Your task to perform on an android device: Show me popular games on the Play Store Image 0: 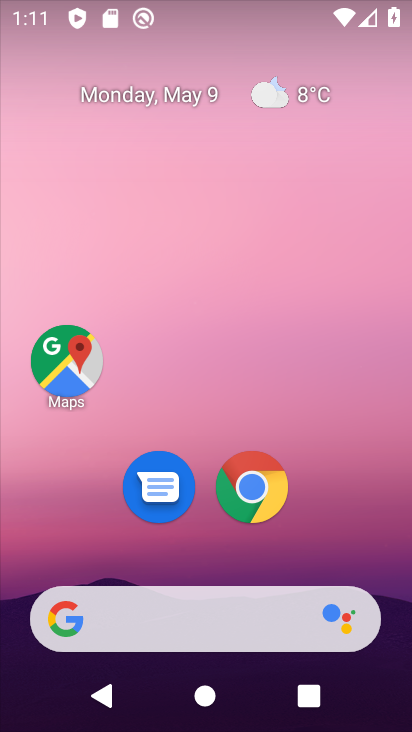
Step 0: drag from (351, 518) to (363, 9)
Your task to perform on an android device: Show me popular games on the Play Store Image 1: 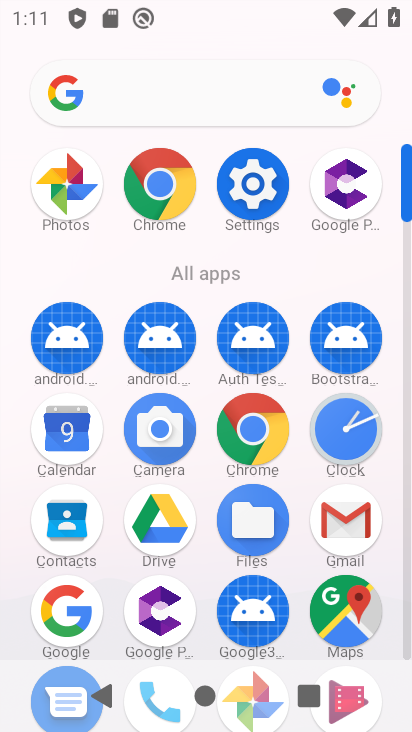
Step 1: drag from (216, 288) to (214, 2)
Your task to perform on an android device: Show me popular games on the Play Store Image 2: 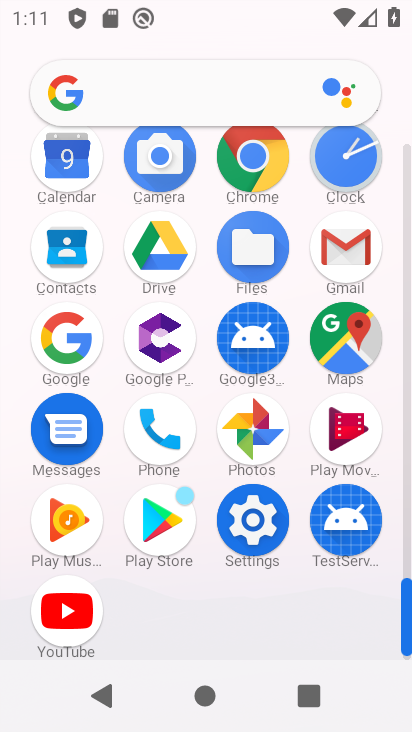
Step 2: click (157, 517)
Your task to perform on an android device: Show me popular games on the Play Store Image 3: 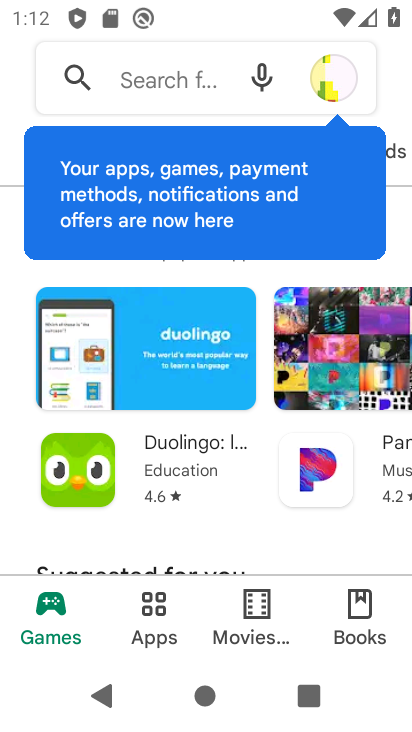
Step 3: drag from (218, 554) to (214, 403)
Your task to perform on an android device: Show me popular games on the Play Store Image 4: 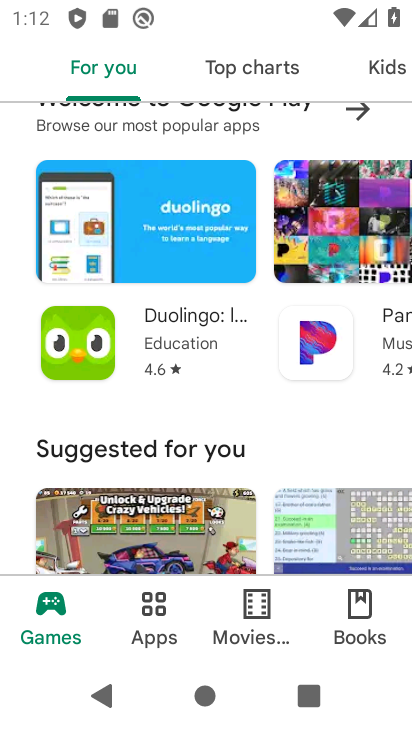
Step 4: click (243, 90)
Your task to perform on an android device: Show me popular games on the Play Store Image 5: 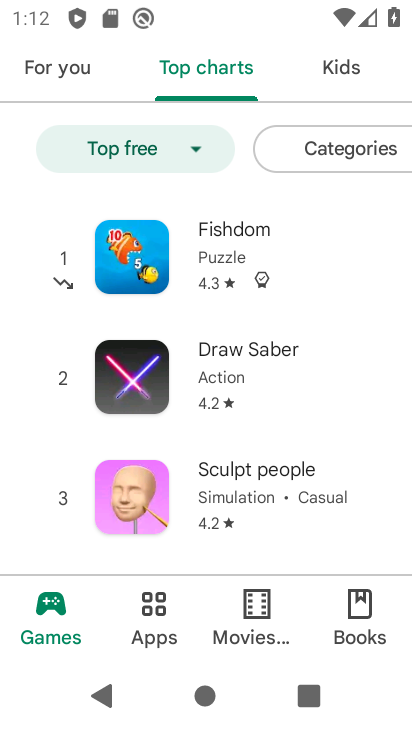
Step 5: task complete